Your task to perform on an android device: Go to internet settings Image 0: 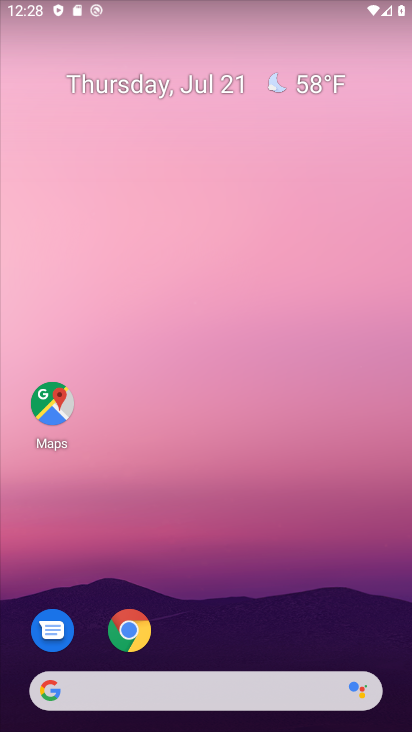
Step 0: drag from (195, 636) to (263, 111)
Your task to perform on an android device: Go to internet settings Image 1: 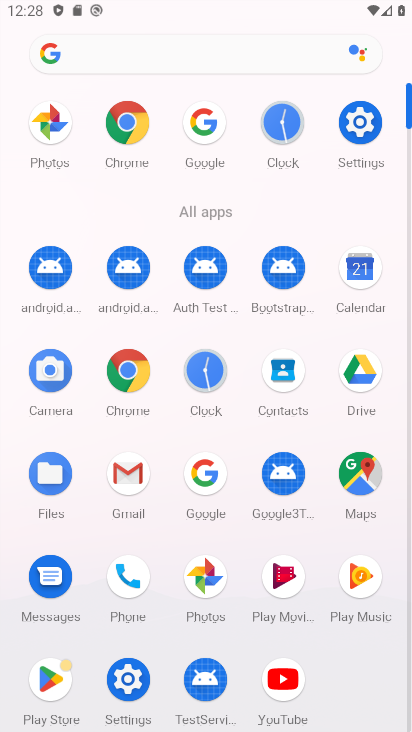
Step 1: click (353, 123)
Your task to perform on an android device: Go to internet settings Image 2: 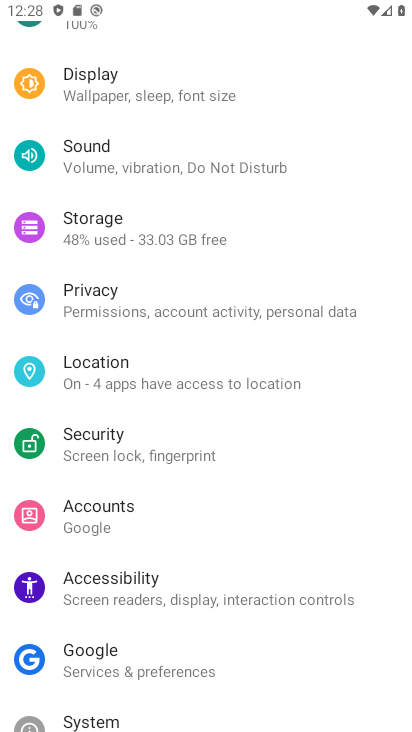
Step 2: drag from (144, 114) to (101, 533)
Your task to perform on an android device: Go to internet settings Image 3: 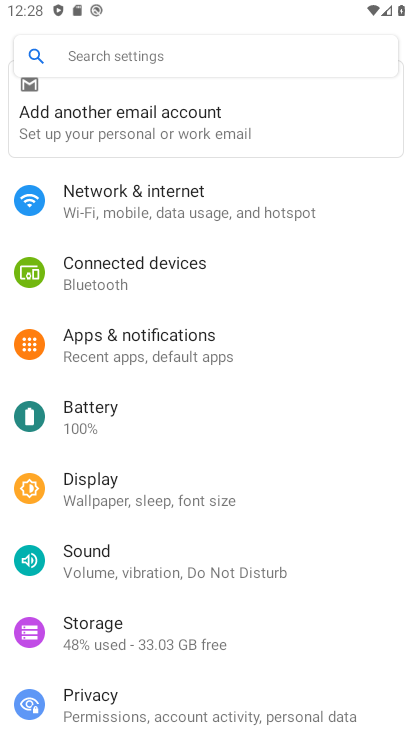
Step 3: click (146, 208)
Your task to perform on an android device: Go to internet settings Image 4: 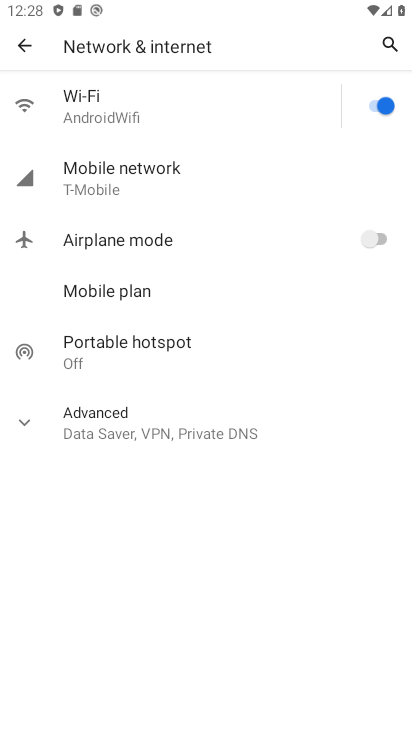
Step 4: click (123, 110)
Your task to perform on an android device: Go to internet settings Image 5: 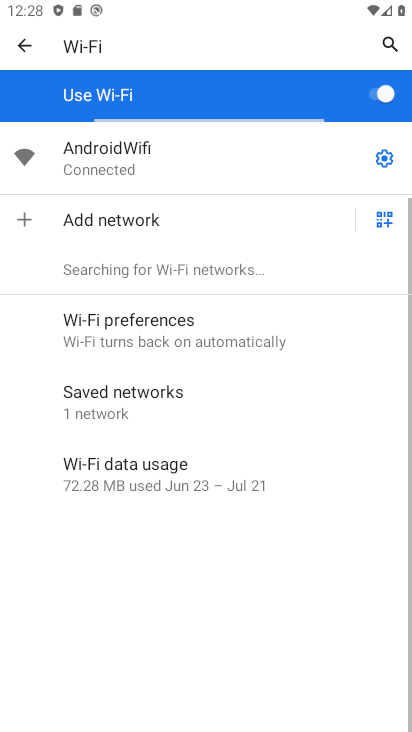
Step 5: click (134, 155)
Your task to perform on an android device: Go to internet settings Image 6: 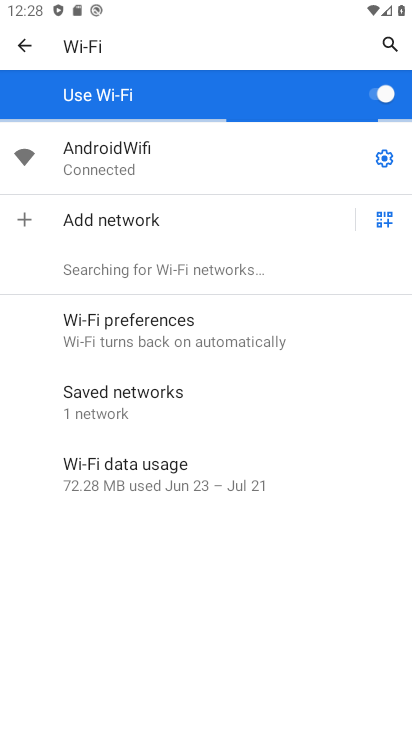
Step 6: click (181, 165)
Your task to perform on an android device: Go to internet settings Image 7: 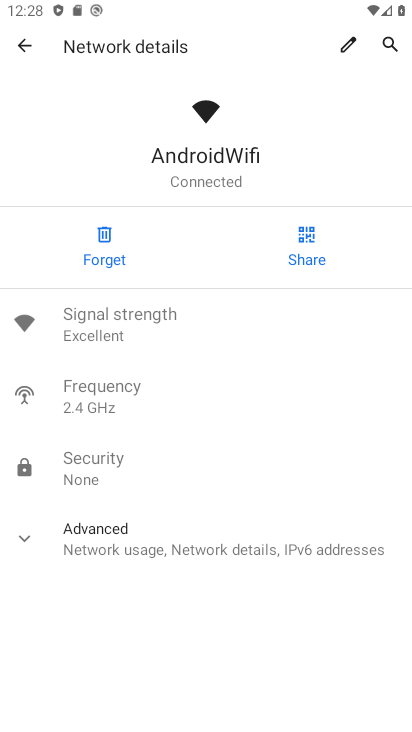
Step 7: task complete